Your task to perform on an android device: Open ESPN.com Image 0: 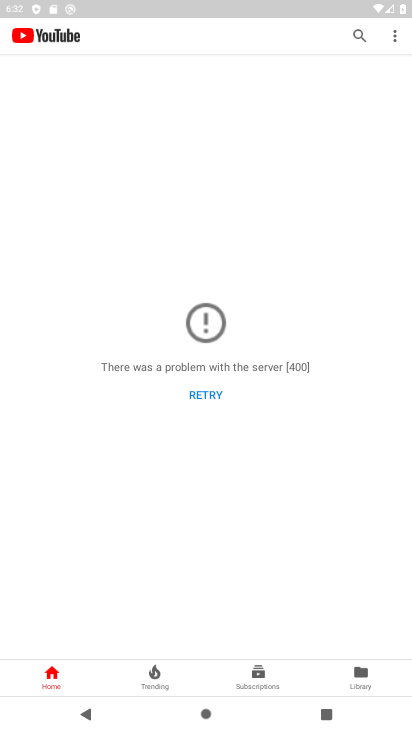
Step 0: press home button
Your task to perform on an android device: Open ESPN.com Image 1: 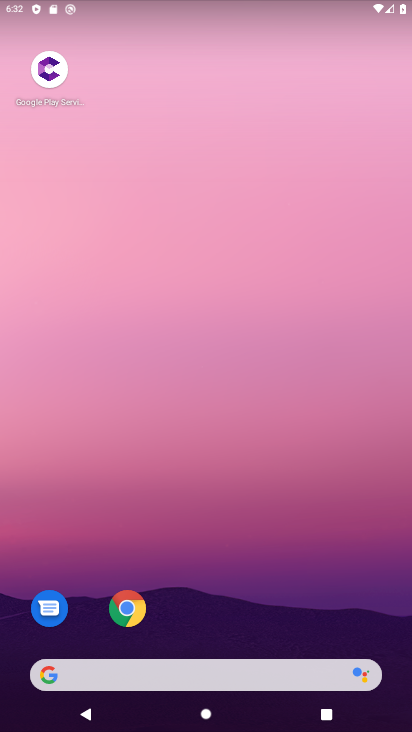
Step 1: click (128, 597)
Your task to perform on an android device: Open ESPN.com Image 2: 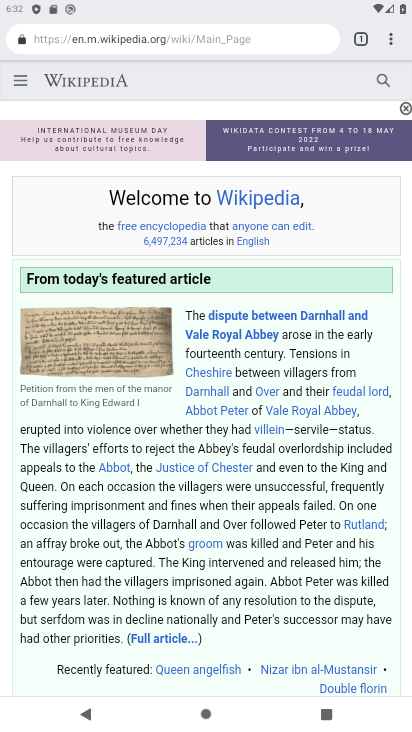
Step 2: click (221, 39)
Your task to perform on an android device: Open ESPN.com Image 3: 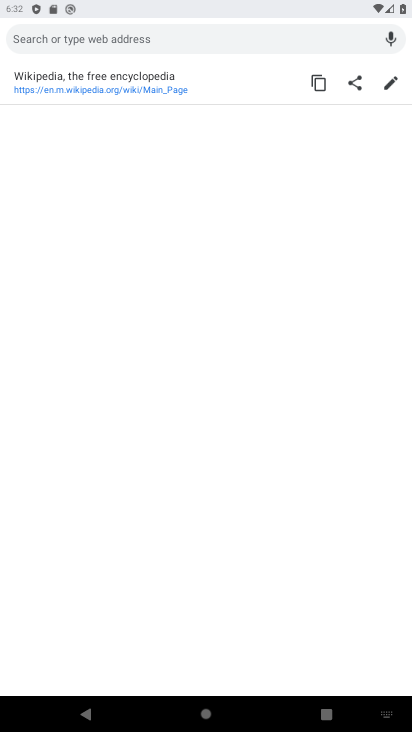
Step 3: type "espn"
Your task to perform on an android device: Open ESPN.com Image 4: 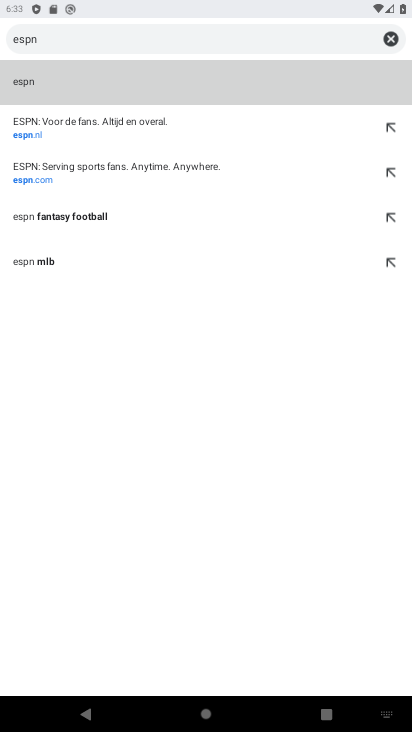
Step 4: click (101, 133)
Your task to perform on an android device: Open ESPN.com Image 5: 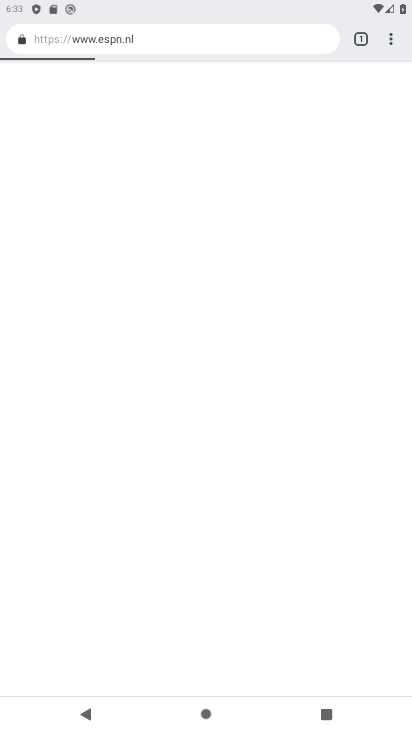
Step 5: task complete